Your task to perform on an android device: turn notification dots off Image 0: 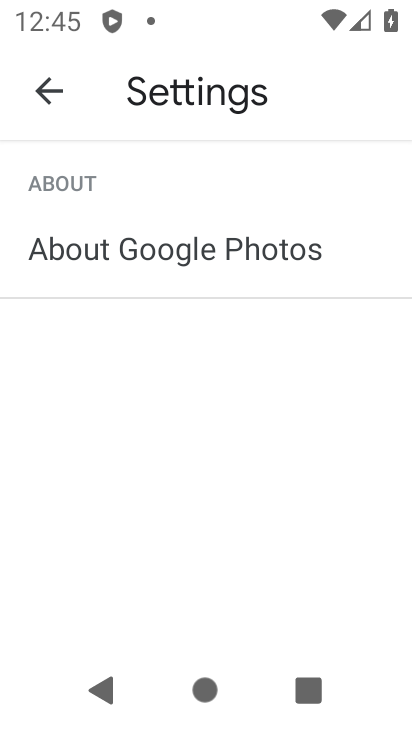
Step 0: press home button
Your task to perform on an android device: turn notification dots off Image 1: 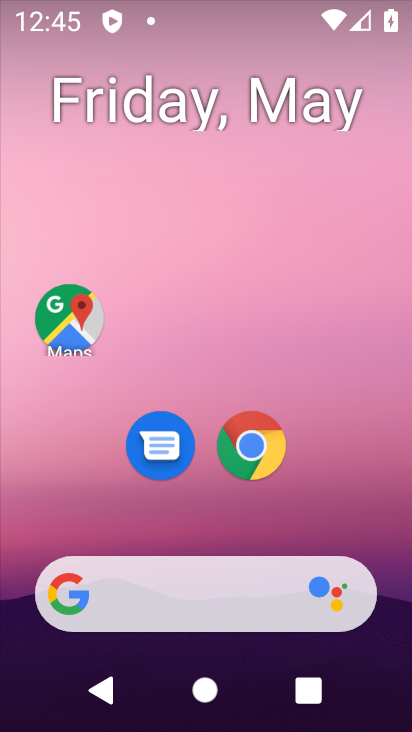
Step 1: drag from (218, 522) to (206, 10)
Your task to perform on an android device: turn notification dots off Image 2: 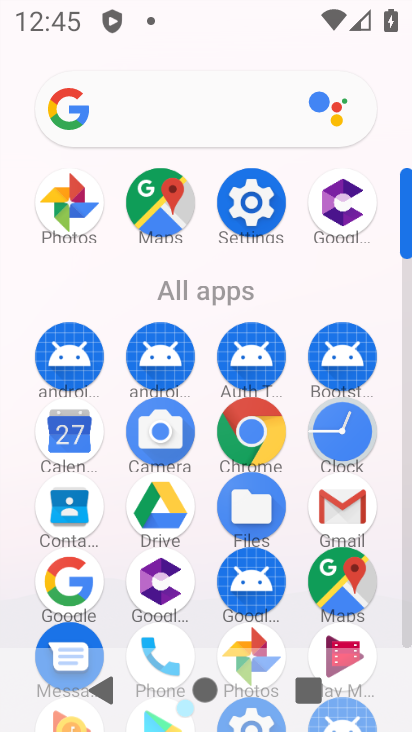
Step 2: click (240, 207)
Your task to perform on an android device: turn notification dots off Image 3: 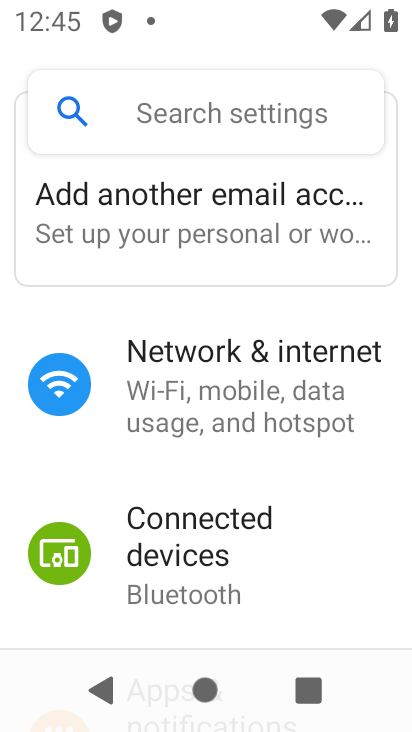
Step 3: drag from (161, 530) to (111, 79)
Your task to perform on an android device: turn notification dots off Image 4: 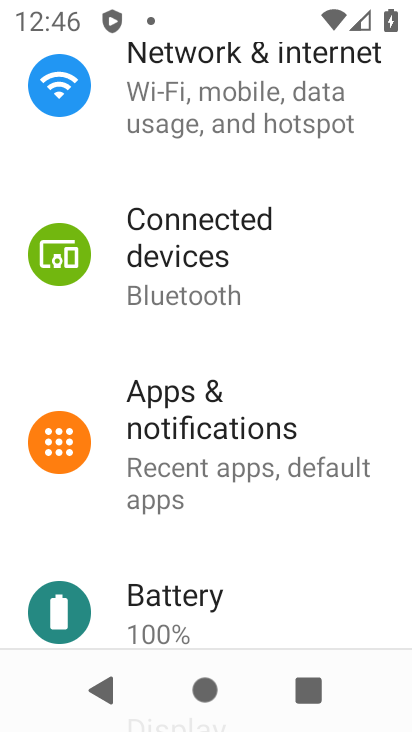
Step 4: click (124, 465)
Your task to perform on an android device: turn notification dots off Image 5: 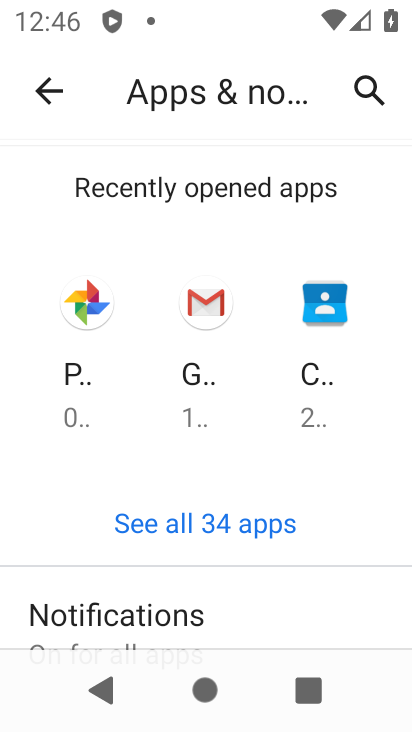
Step 5: drag from (324, 636) to (272, 129)
Your task to perform on an android device: turn notification dots off Image 6: 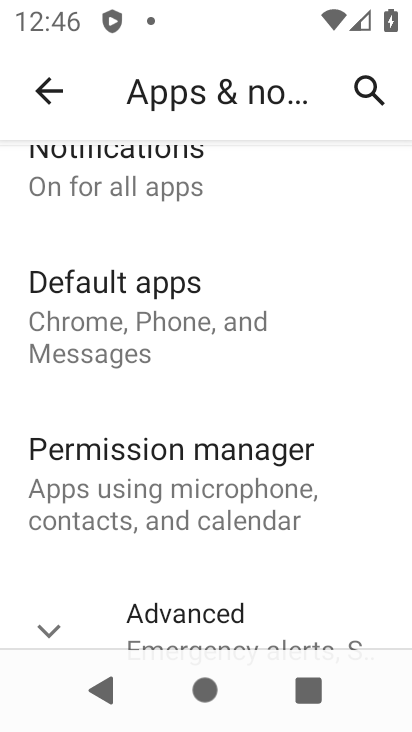
Step 6: click (151, 192)
Your task to perform on an android device: turn notification dots off Image 7: 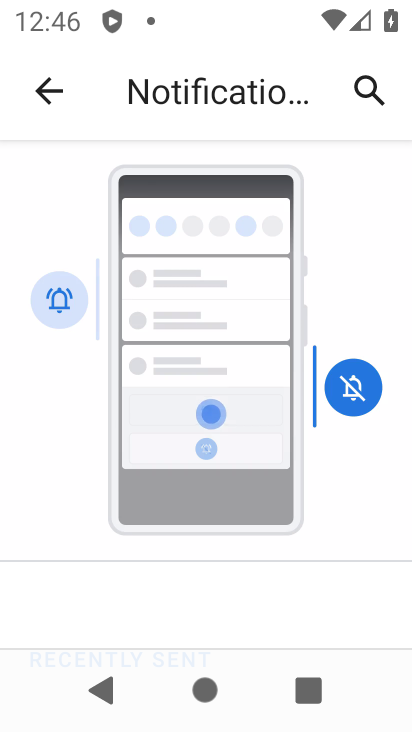
Step 7: drag from (196, 592) to (213, 1)
Your task to perform on an android device: turn notification dots off Image 8: 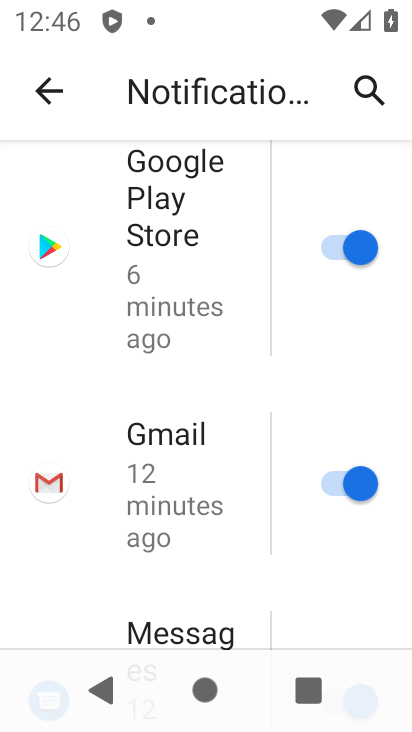
Step 8: drag from (166, 528) to (120, 34)
Your task to perform on an android device: turn notification dots off Image 9: 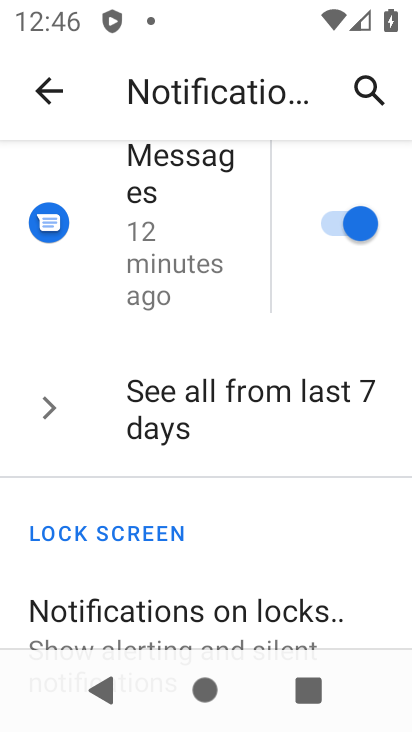
Step 9: drag from (185, 588) to (202, 134)
Your task to perform on an android device: turn notification dots off Image 10: 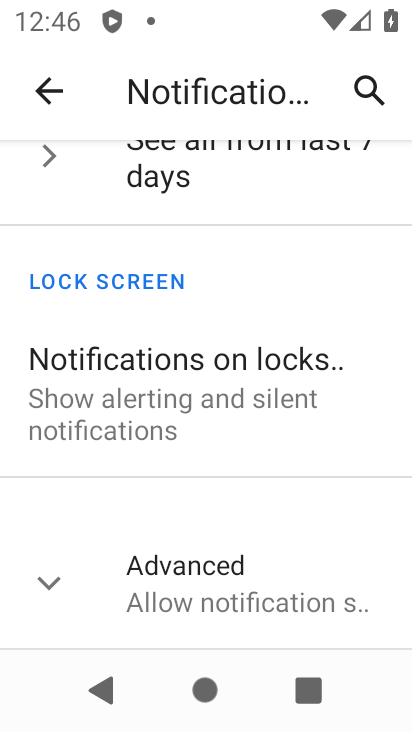
Step 10: click (221, 587)
Your task to perform on an android device: turn notification dots off Image 11: 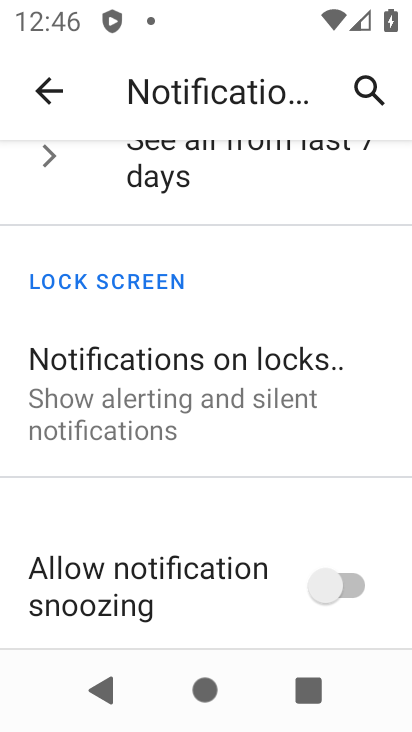
Step 11: drag from (191, 608) to (146, 163)
Your task to perform on an android device: turn notification dots off Image 12: 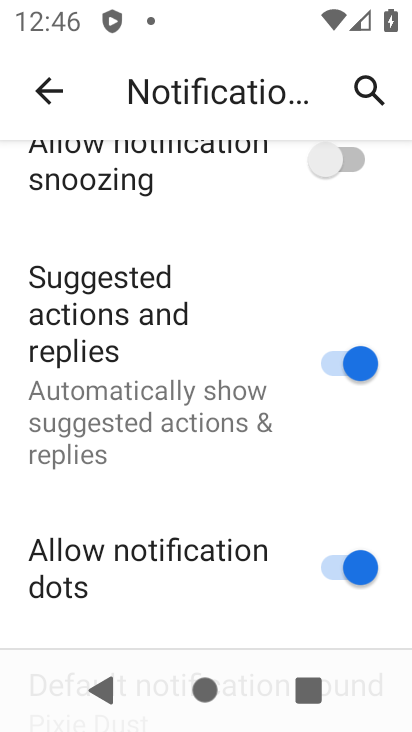
Step 12: click (370, 581)
Your task to perform on an android device: turn notification dots off Image 13: 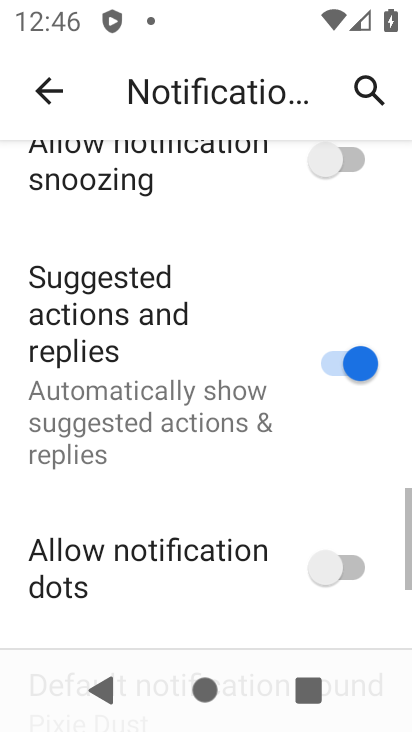
Step 13: task complete